Your task to perform on an android device: Go to Amazon Image 0: 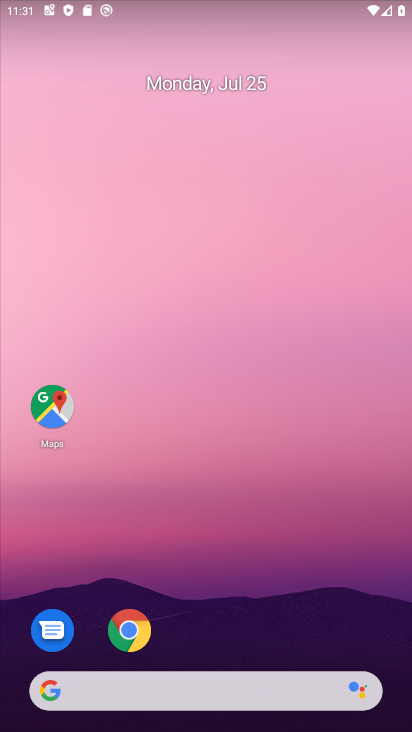
Step 0: press home button
Your task to perform on an android device: Go to Amazon Image 1: 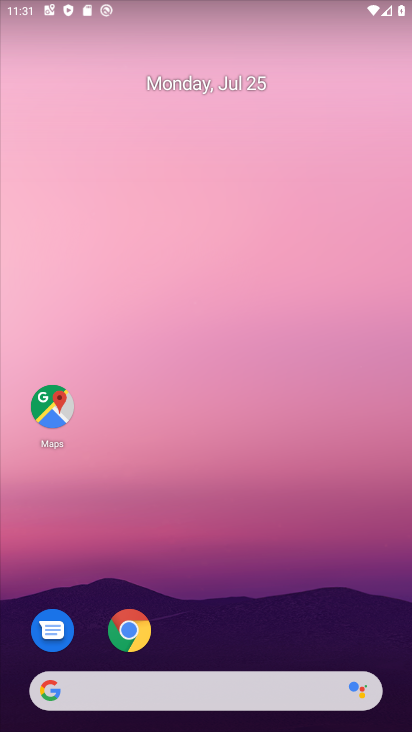
Step 1: drag from (369, 624) to (368, 75)
Your task to perform on an android device: Go to Amazon Image 2: 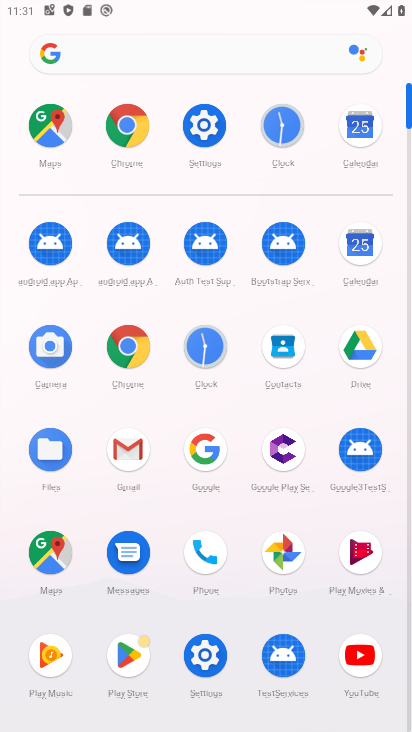
Step 2: click (132, 355)
Your task to perform on an android device: Go to Amazon Image 3: 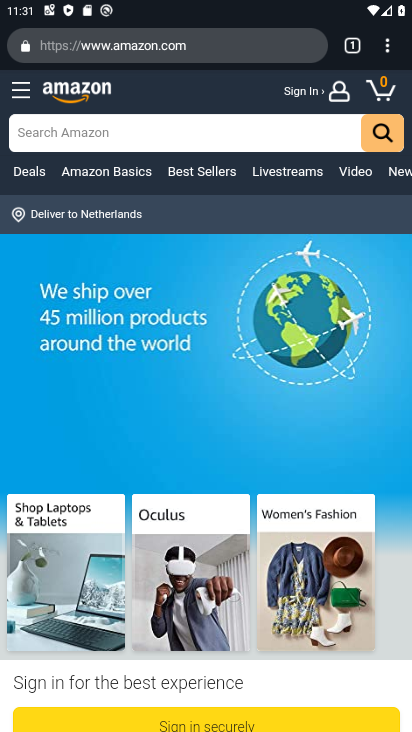
Step 3: task complete